Your task to perform on an android device: Open wifi settings Image 0: 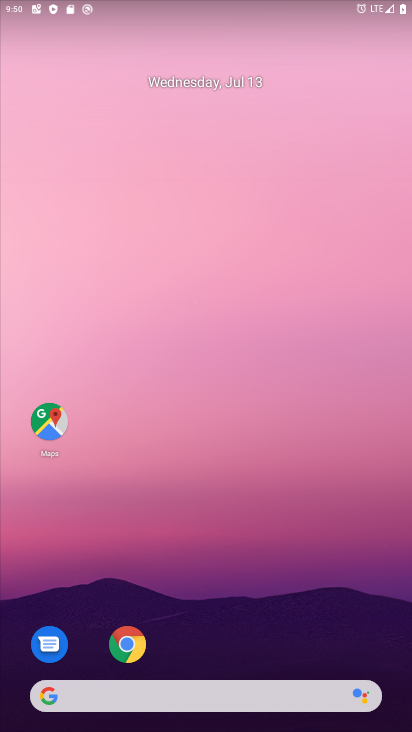
Step 0: drag from (202, 633) to (210, 114)
Your task to perform on an android device: Open wifi settings Image 1: 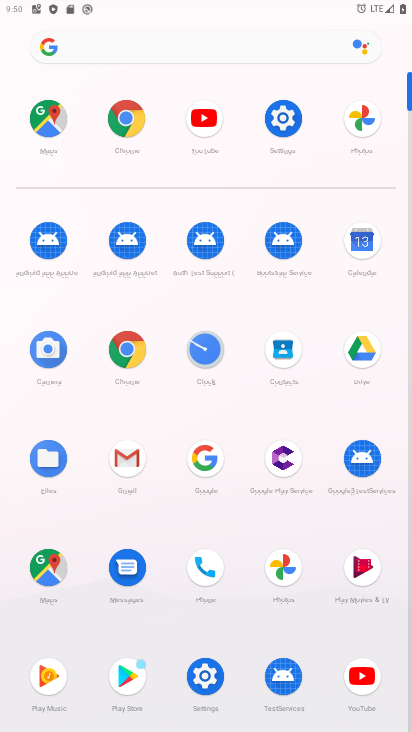
Step 1: click (278, 111)
Your task to perform on an android device: Open wifi settings Image 2: 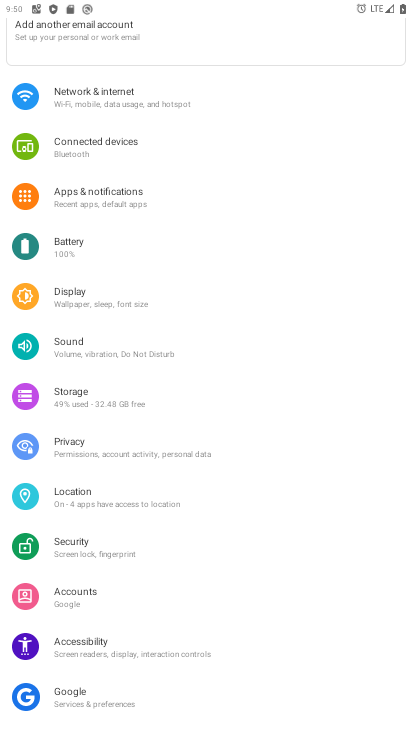
Step 2: click (84, 102)
Your task to perform on an android device: Open wifi settings Image 3: 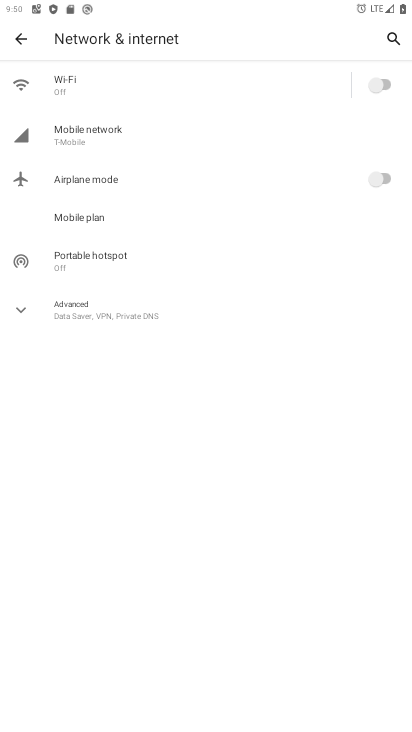
Step 3: click (59, 76)
Your task to perform on an android device: Open wifi settings Image 4: 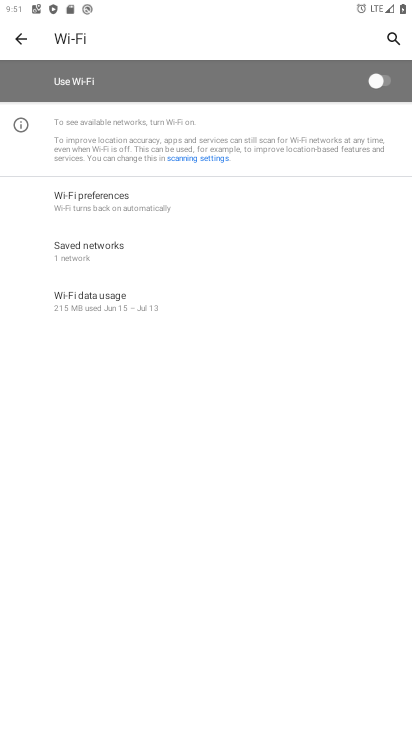
Step 4: task complete